Your task to perform on an android device: open app "Microsoft Excel" (install if not already installed), go to login, and select forgot password Image 0: 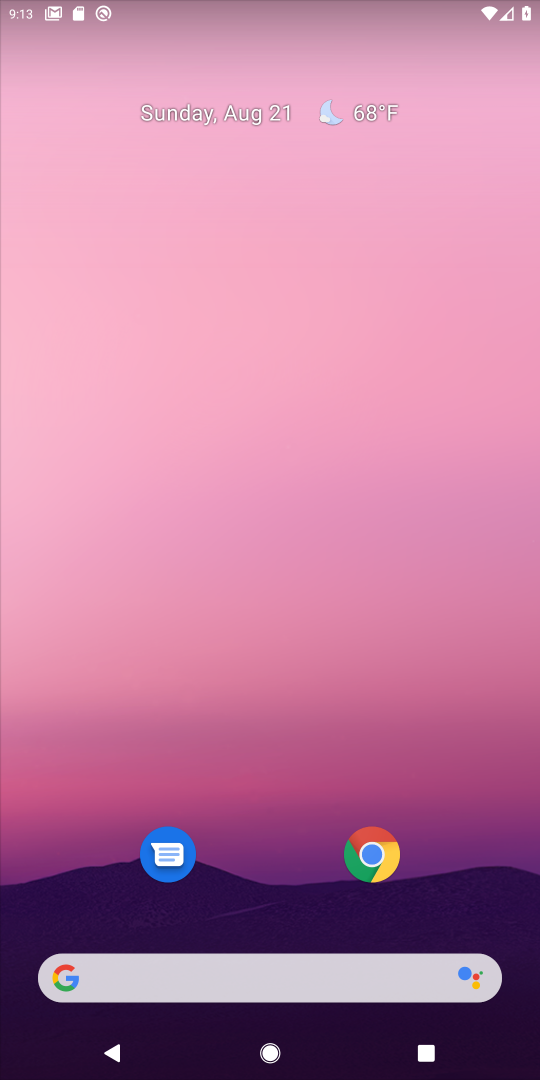
Step 0: drag from (357, 939) to (357, 35)
Your task to perform on an android device: open app "Microsoft Excel" (install if not already installed), go to login, and select forgot password Image 1: 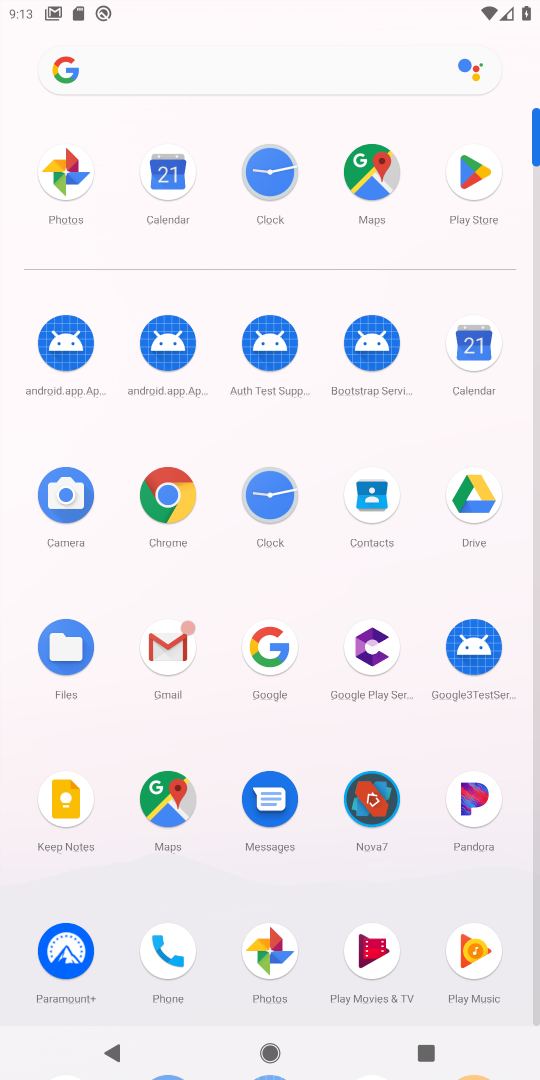
Step 1: click (446, 168)
Your task to perform on an android device: open app "Microsoft Excel" (install if not already installed), go to login, and select forgot password Image 2: 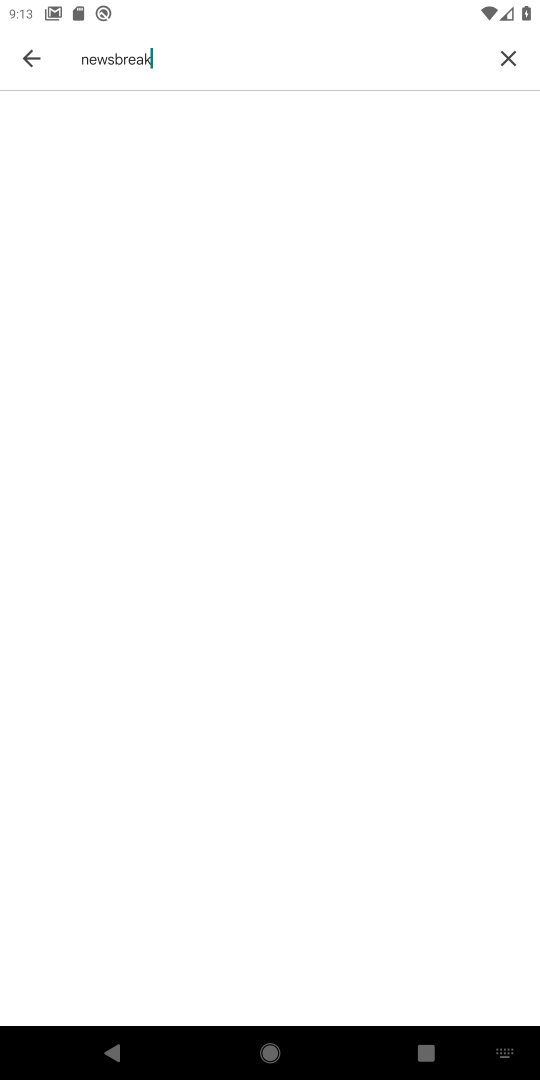
Step 2: click (501, 58)
Your task to perform on an android device: open app "Microsoft Excel" (install if not already installed), go to login, and select forgot password Image 3: 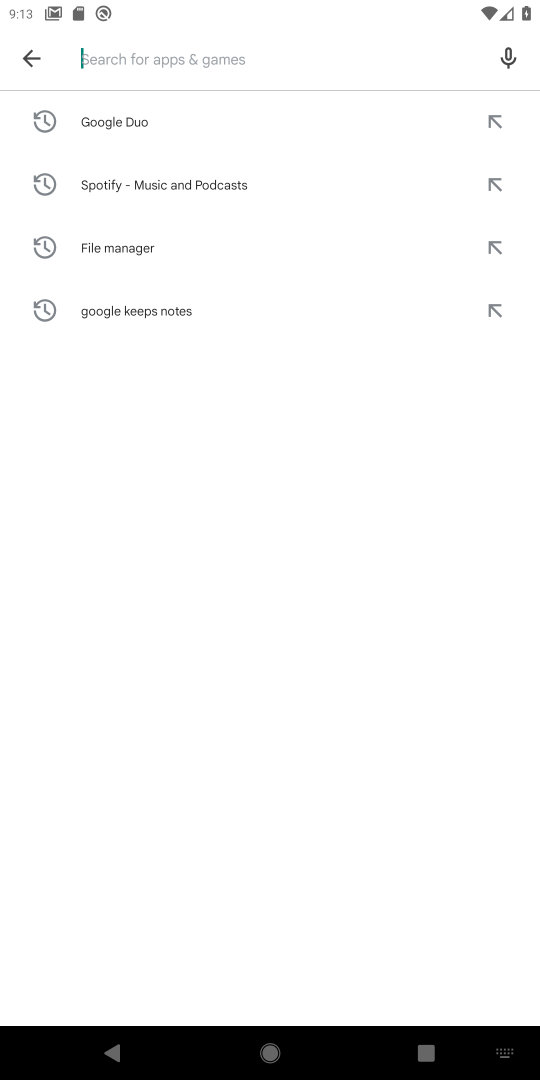
Step 3: type "microsoft excel"
Your task to perform on an android device: open app "Microsoft Excel" (install if not already installed), go to login, and select forgot password Image 4: 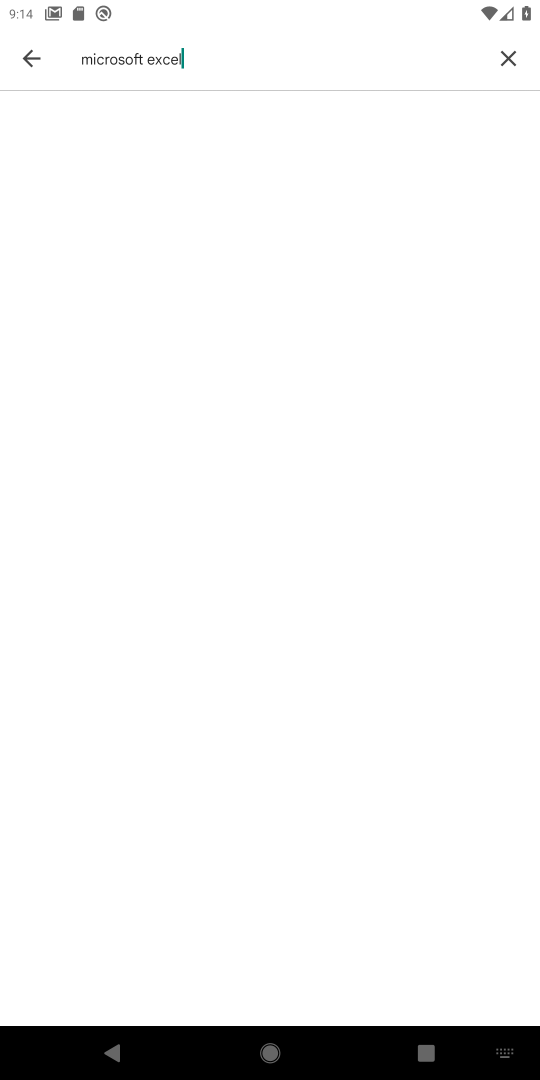
Step 4: task complete